Your task to perform on an android device: Open Reddit.com Image 0: 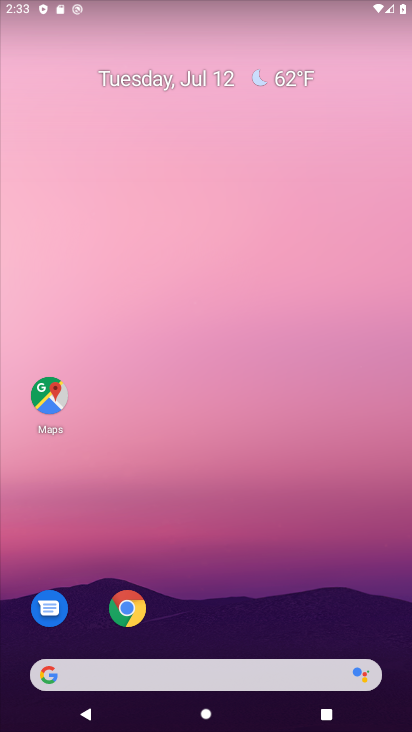
Step 0: press home button
Your task to perform on an android device: Open Reddit.com Image 1: 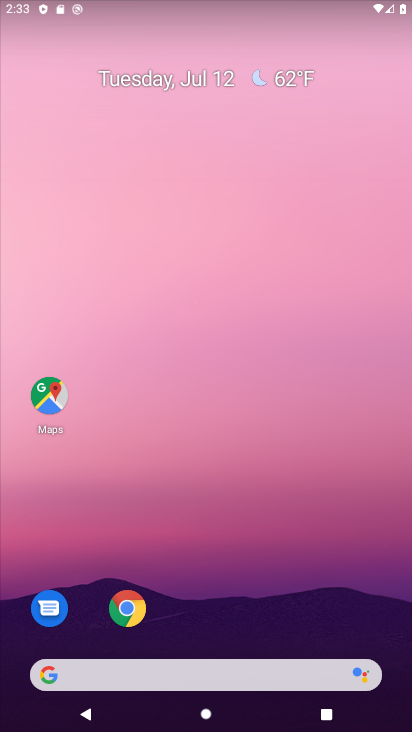
Step 1: click (126, 608)
Your task to perform on an android device: Open Reddit.com Image 2: 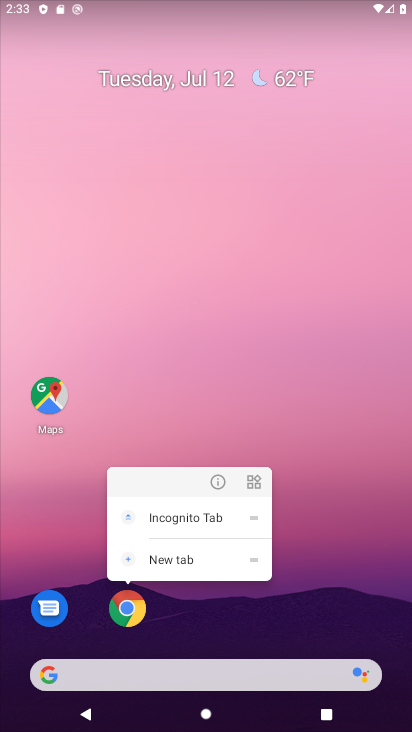
Step 2: click (126, 607)
Your task to perform on an android device: Open Reddit.com Image 3: 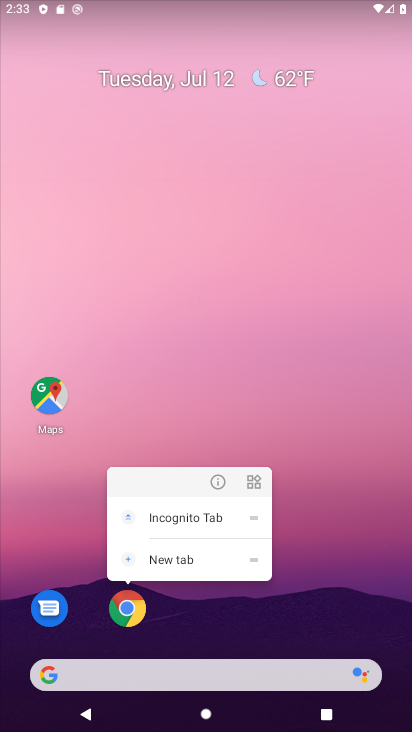
Step 3: click (126, 608)
Your task to perform on an android device: Open Reddit.com Image 4: 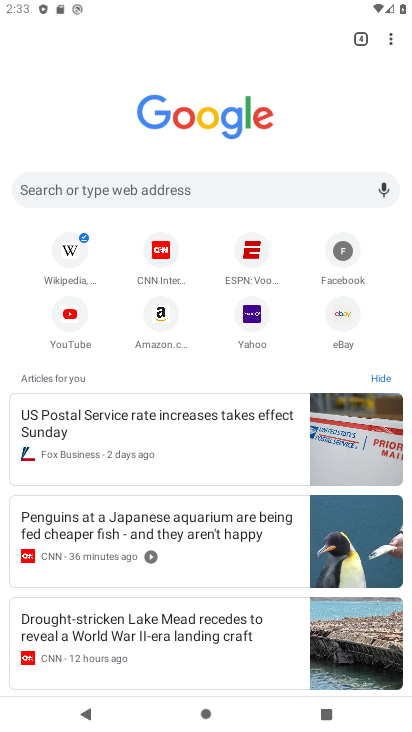
Step 4: click (124, 186)
Your task to perform on an android device: Open Reddit.com Image 5: 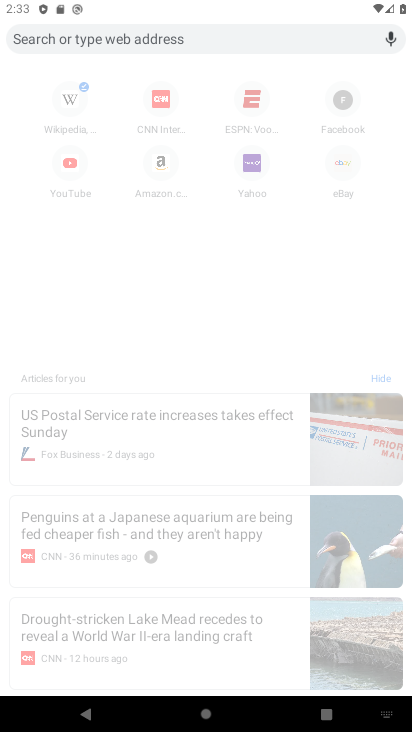
Step 5: type "reddit.com"
Your task to perform on an android device: Open Reddit.com Image 6: 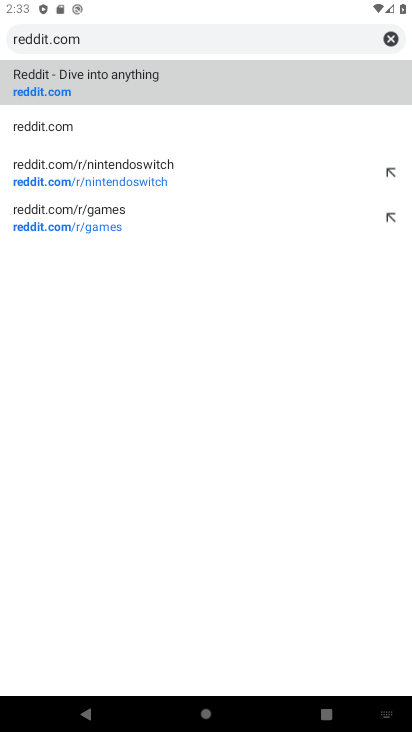
Step 6: click (167, 84)
Your task to perform on an android device: Open Reddit.com Image 7: 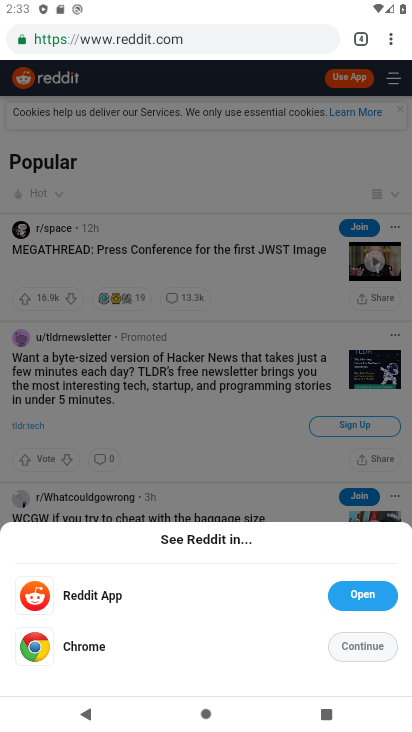
Step 7: task complete